Your task to perform on an android device: What's the weather? Image 0: 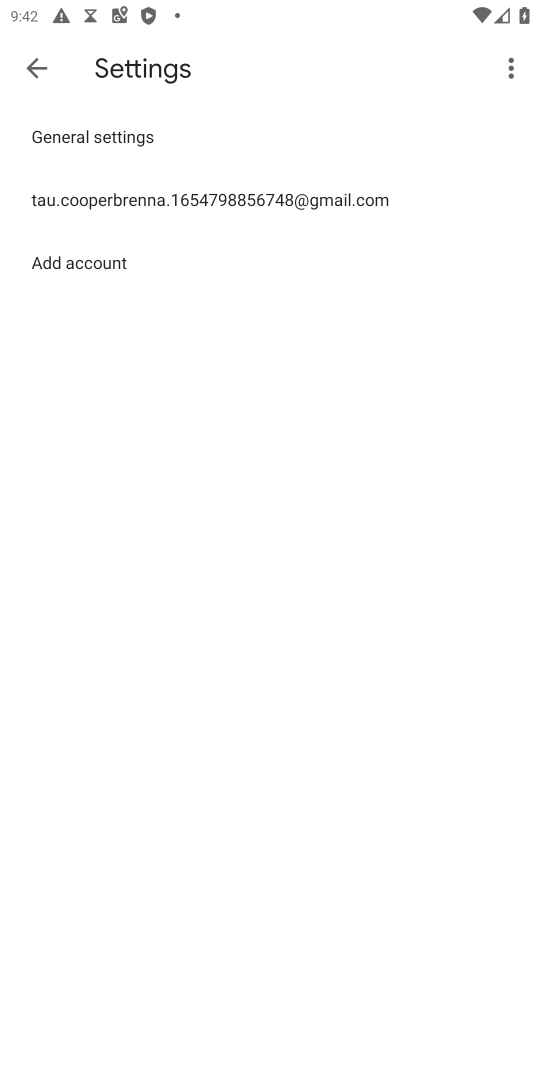
Step 0: press home button
Your task to perform on an android device: What's the weather? Image 1: 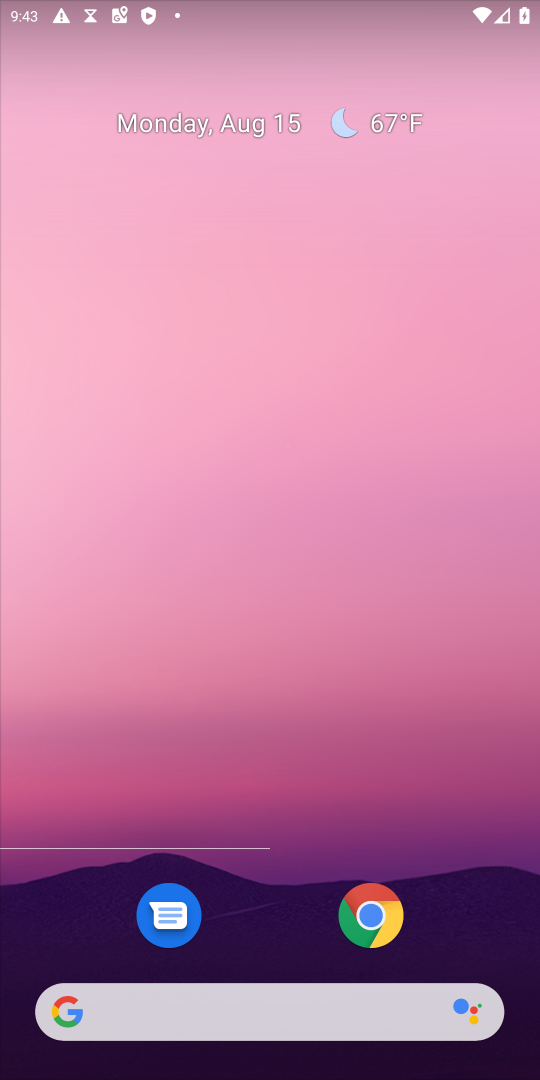
Step 1: click (55, 1019)
Your task to perform on an android device: What's the weather? Image 2: 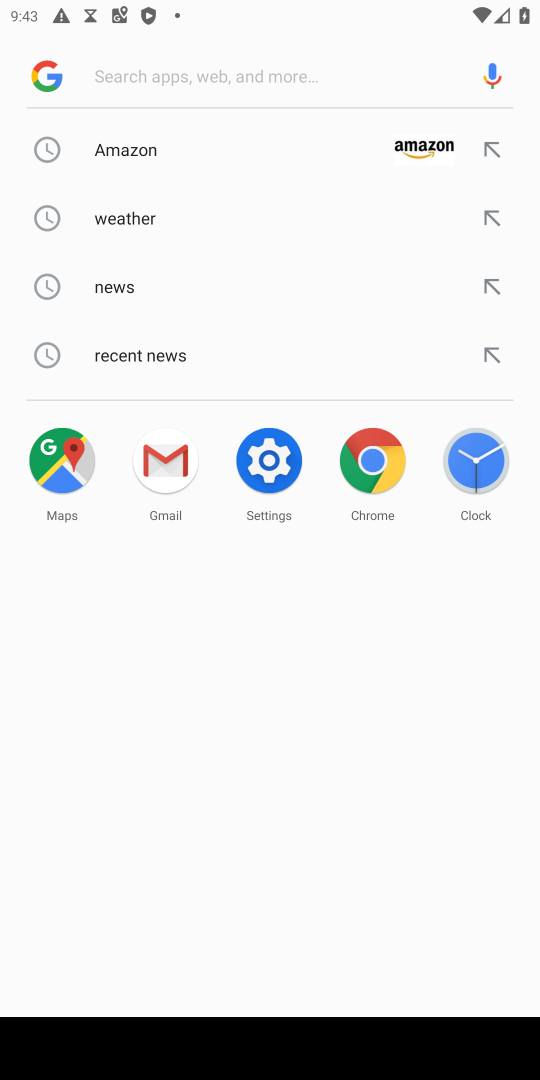
Step 2: click (125, 222)
Your task to perform on an android device: What's the weather? Image 3: 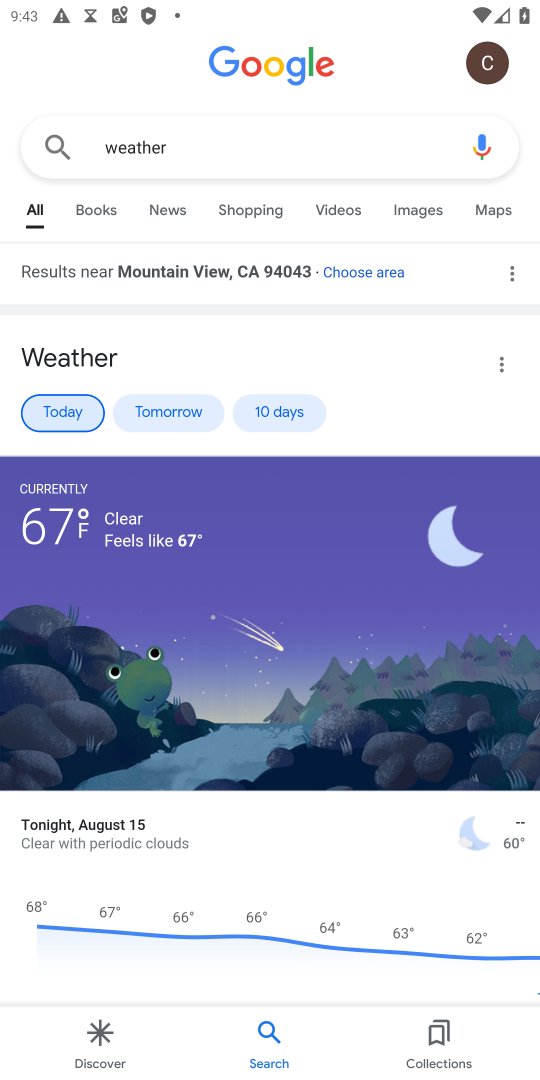
Step 3: task complete